Your task to perform on an android device: check google app version Image 0: 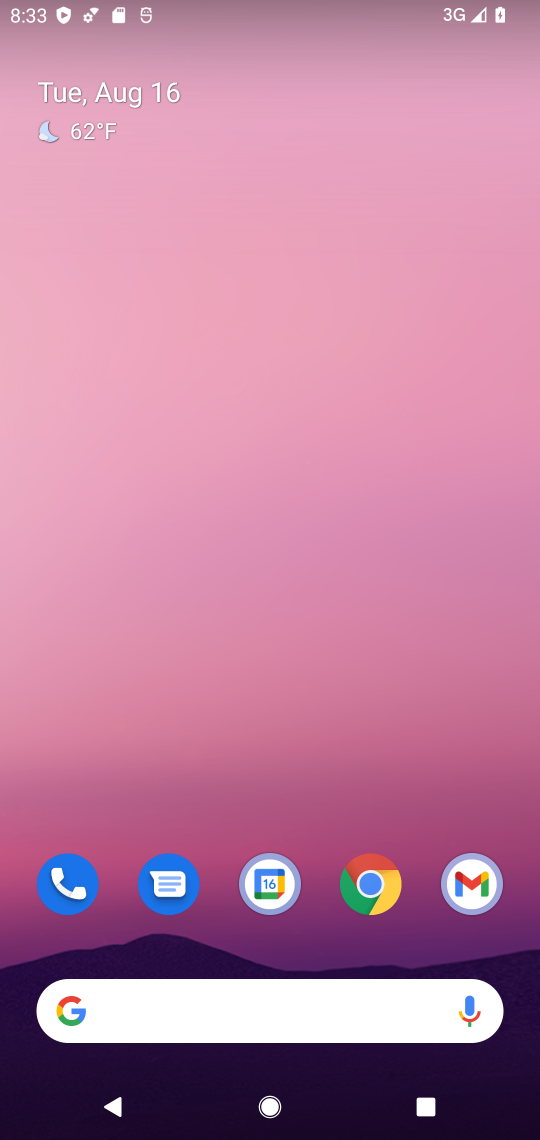
Step 0: click (366, 881)
Your task to perform on an android device: check google app version Image 1: 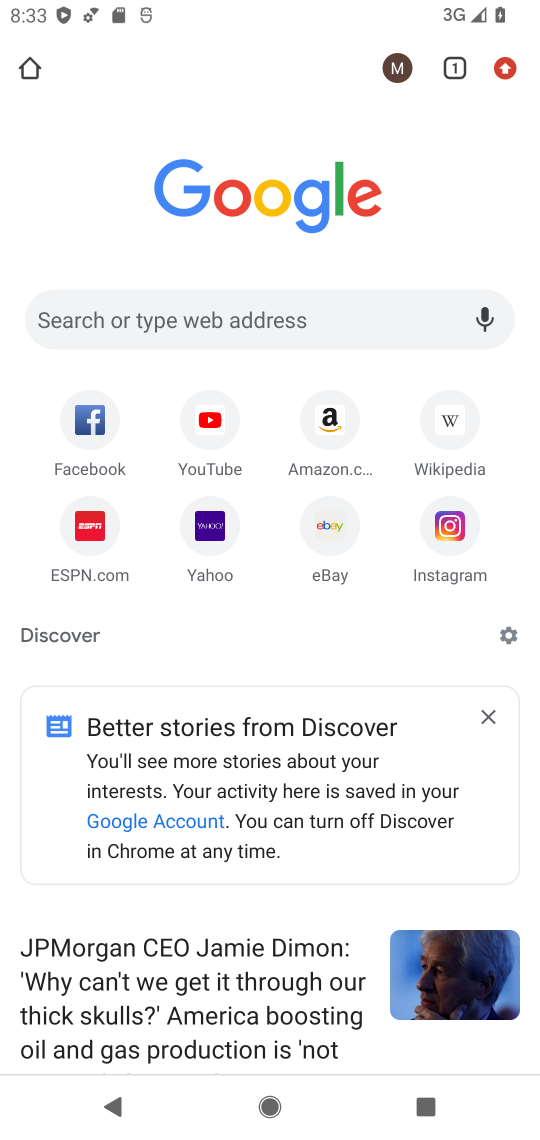
Step 1: click (504, 73)
Your task to perform on an android device: check google app version Image 2: 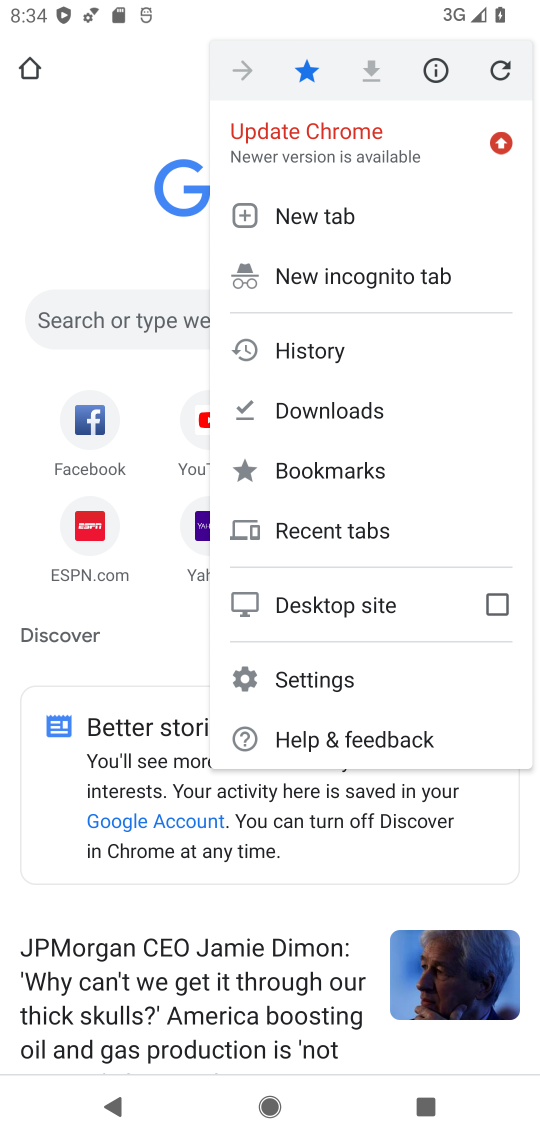
Step 2: click (334, 690)
Your task to perform on an android device: check google app version Image 3: 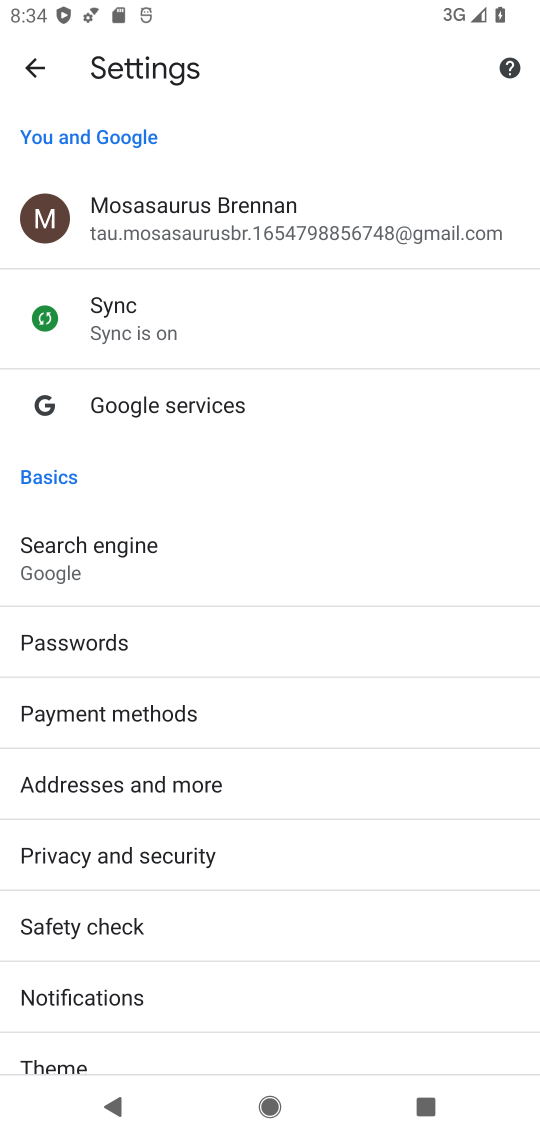
Step 3: drag from (303, 978) to (301, 546)
Your task to perform on an android device: check google app version Image 4: 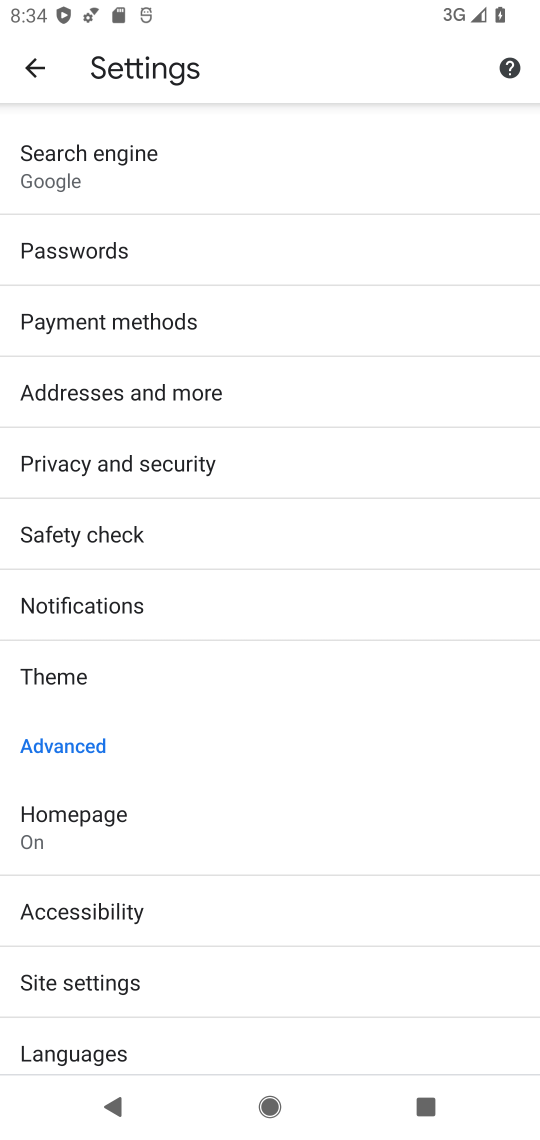
Step 4: drag from (281, 996) to (292, 421)
Your task to perform on an android device: check google app version Image 5: 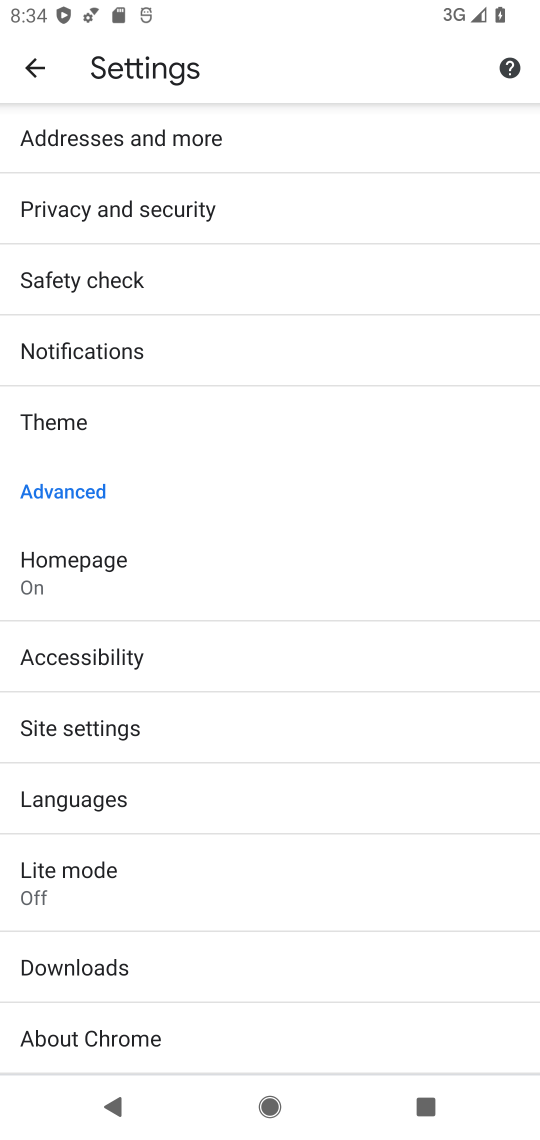
Step 5: click (139, 1049)
Your task to perform on an android device: check google app version Image 6: 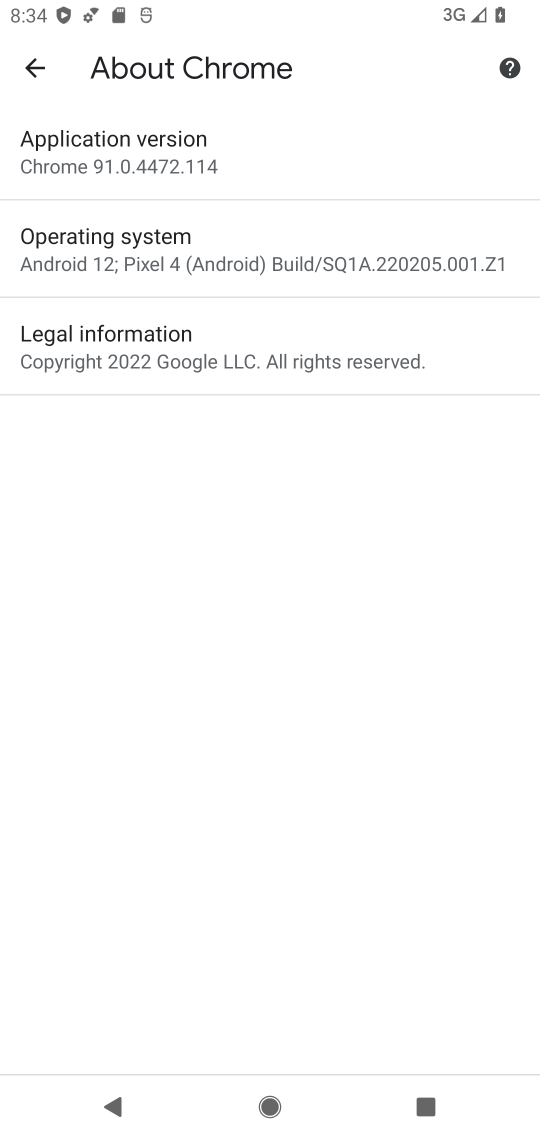
Step 6: task complete